Your task to perform on an android device: open a new tab in the chrome app Image 0: 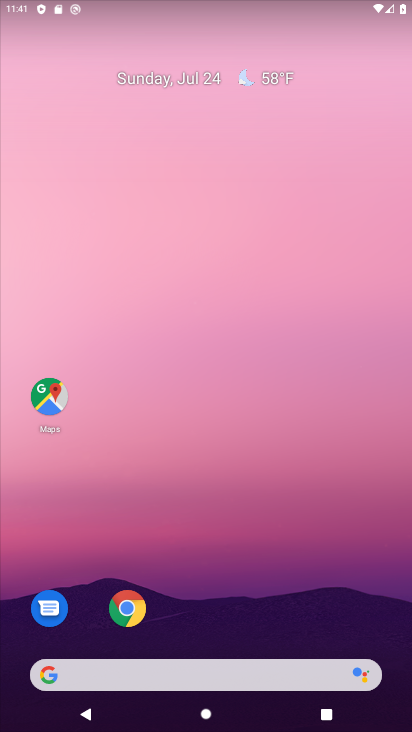
Step 0: drag from (169, 672) to (150, 196)
Your task to perform on an android device: open a new tab in the chrome app Image 1: 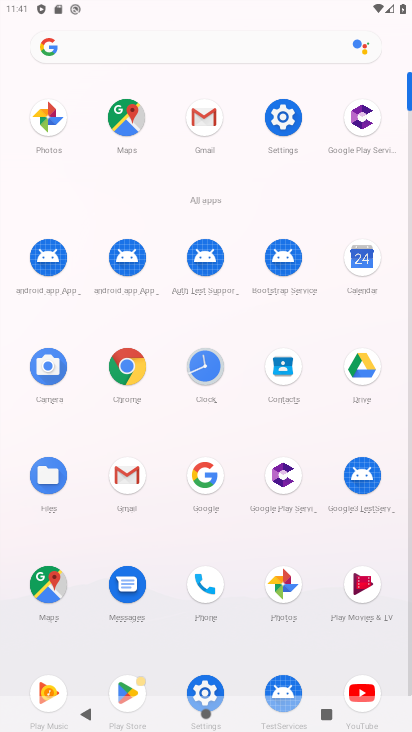
Step 1: drag from (242, 626) to (224, 173)
Your task to perform on an android device: open a new tab in the chrome app Image 2: 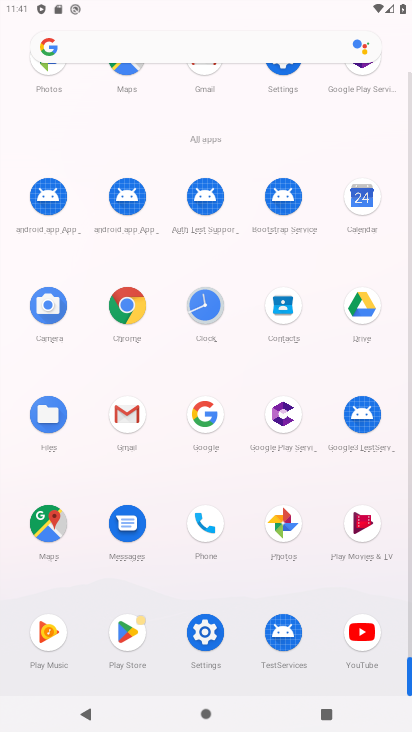
Step 2: click (118, 307)
Your task to perform on an android device: open a new tab in the chrome app Image 3: 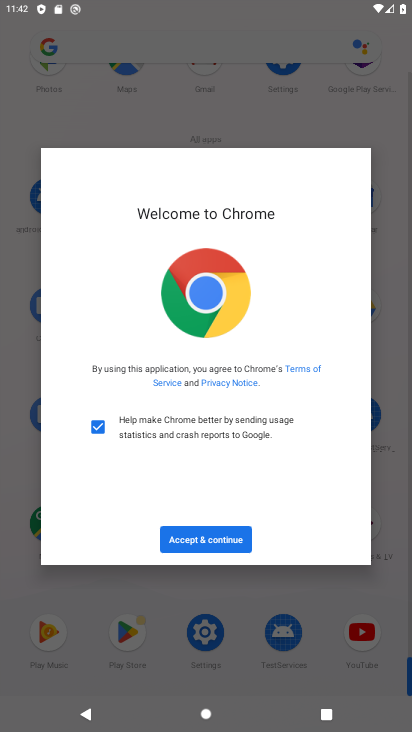
Step 3: click (206, 541)
Your task to perform on an android device: open a new tab in the chrome app Image 4: 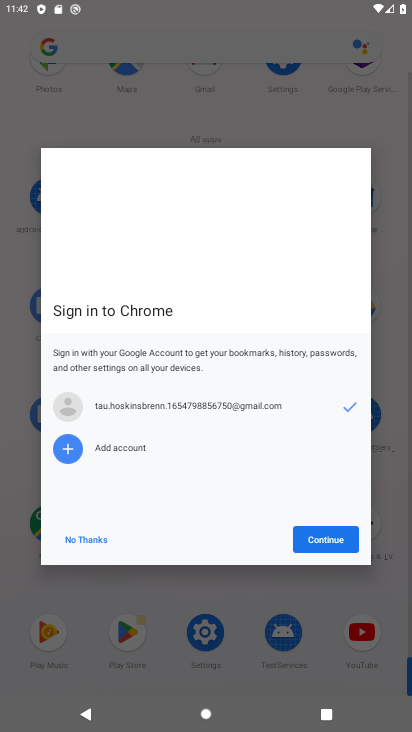
Step 4: click (352, 537)
Your task to perform on an android device: open a new tab in the chrome app Image 5: 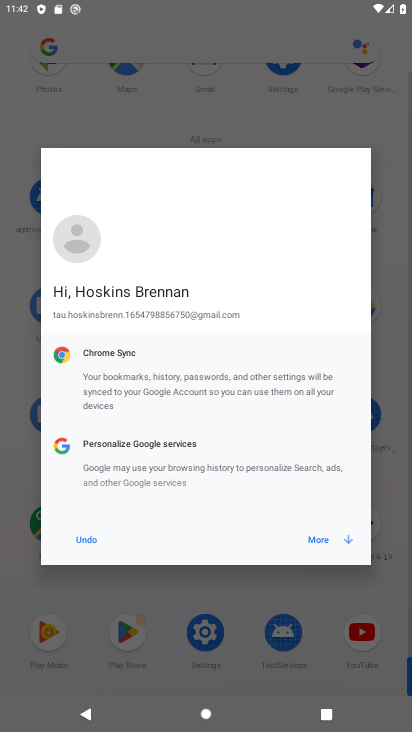
Step 5: click (318, 544)
Your task to perform on an android device: open a new tab in the chrome app Image 6: 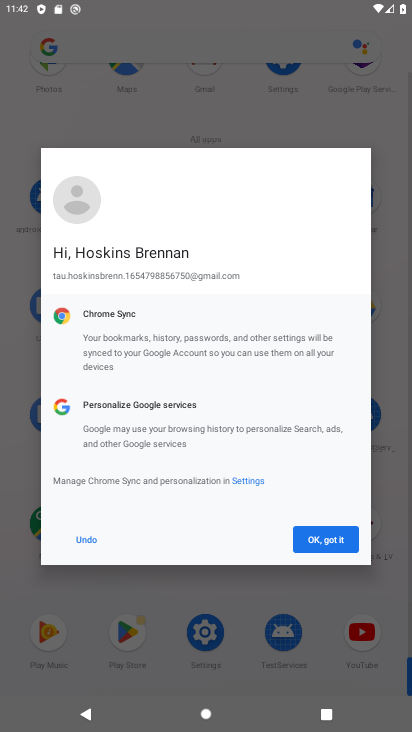
Step 6: click (329, 537)
Your task to perform on an android device: open a new tab in the chrome app Image 7: 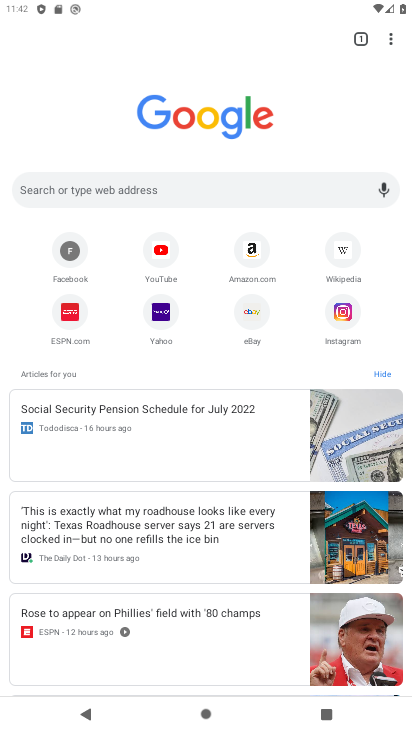
Step 7: task complete